Your task to perform on an android device: Open Maps and search for coffee Image 0: 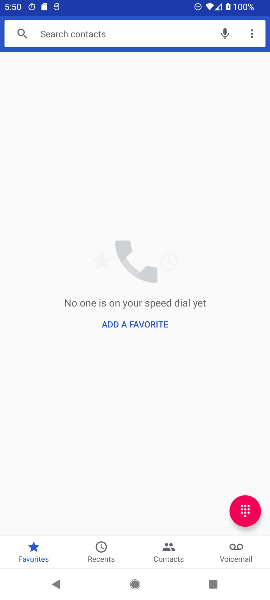
Step 0: press back button
Your task to perform on an android device: Open Maps and search for coffee Image 1: 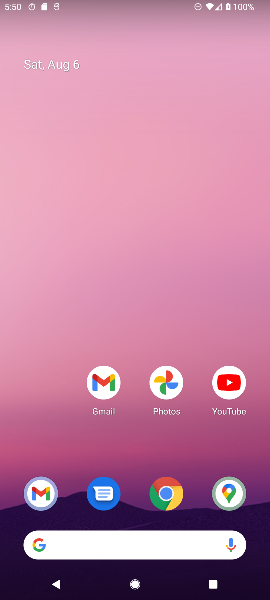
Step 1: click (42, 141)
Your task to perform on an android device: Open Maps and search for coffee Image 2: 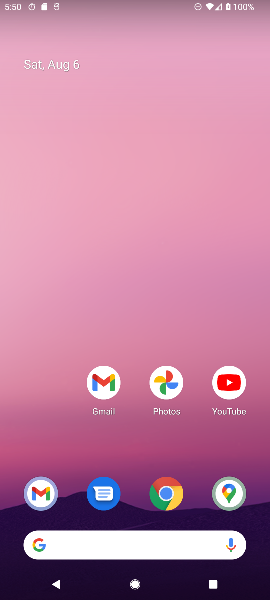
Step 2: drag from (133, 352) to (114, 28)
Your task to perform on an android device: Open Maps and search for coffee Image 3: 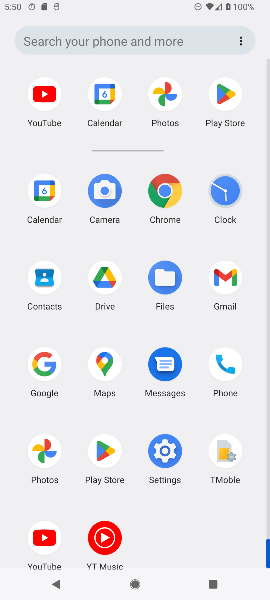
Step 3: drag from (165, 344) to (124, 163)
Your task to perform on an android device: Open Maps and search for coffee Image 4: 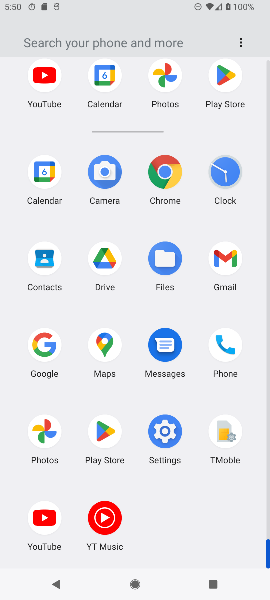
Step 4: click (99, 357)
Your task to perform on an android device: Open Maps and search for coffee Image 5: 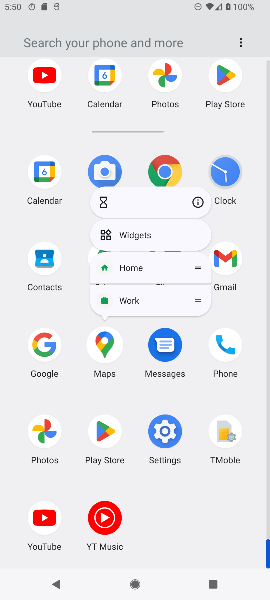
Step 5: click (99, 357)
Your task to perform on an android device: Open Maps and search for coffee Image 6: 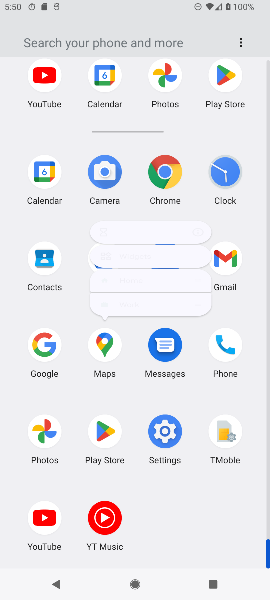
Step 6: click (101, 354)
Your task to perform on an android device: Open Maps and search for coffee Image 7: 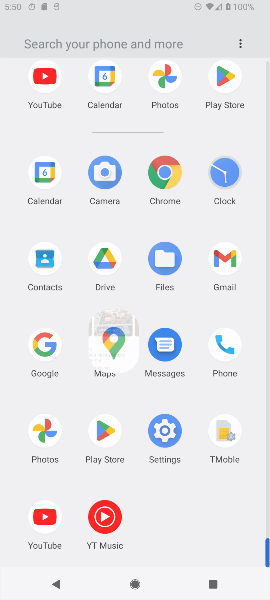
Step 7: click (103, 355)
Your task to perform on an android device: Open Maps and search for coffee Image 8: 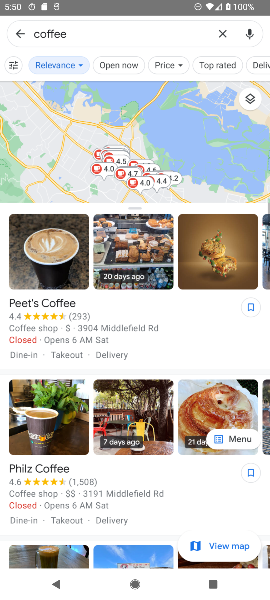
Step 8: click (103, 353)
Your task to perform on an android device: Open Maps and search for coffee Image 9: 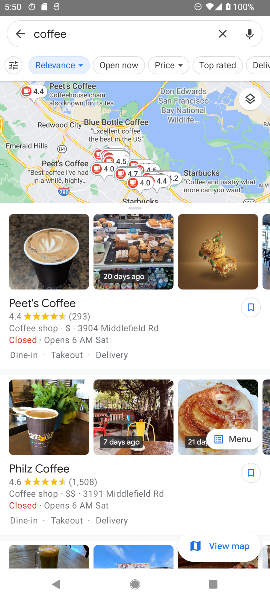
Step 9: click (103, 46)
Your task to perform on an android device: Open Maps and search for coffee Image 10: 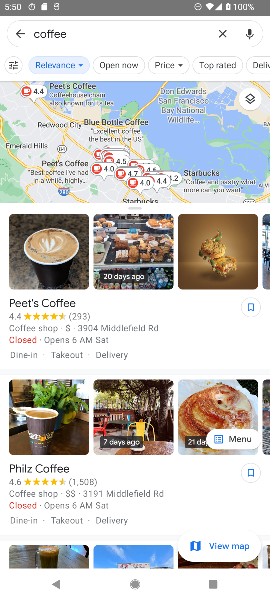
Step 10: click (101, 37)
Your task to perform on an android device: Open Maps and search for coffee Image 11: 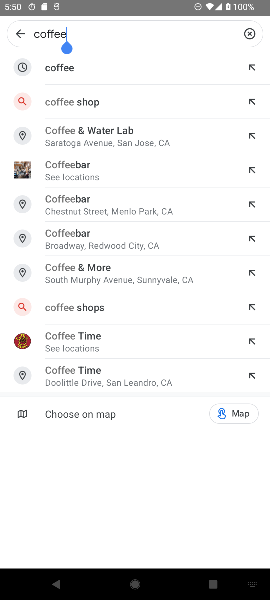
Step 11: click (72, 78)
Your task to perform on an android device: Open Maps and search for coffee Image 12: 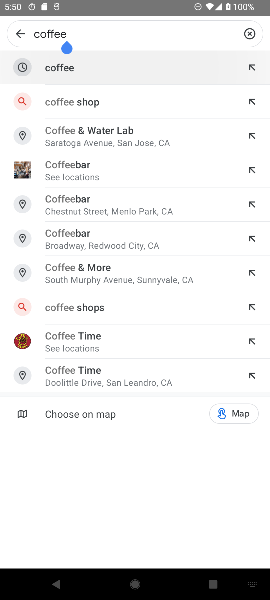
Step 12: click (76, 76)
Your task to perform on an android device: Open Maps and search for coffee Image 13: 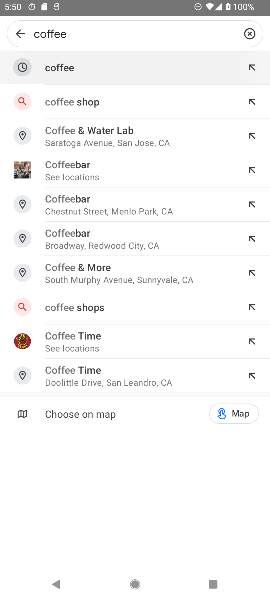
Step 13: click (77, 78)
Your task to perform on an android device: Open Maps and search for coffee Image 14: 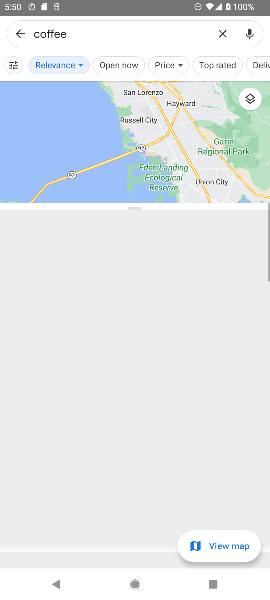
Step 14: click (93, 71)
Your task to perform on an android device: Open Maps and search for coffee Image 15: 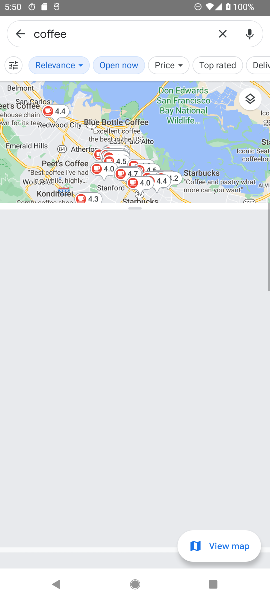
Step 15: task complete